Your task to perform on an android device: find snoozed emails in the gmail app Image 0: 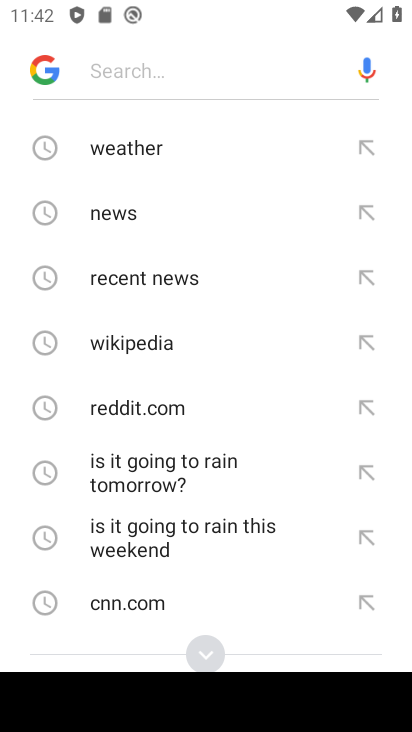
Step 0: press home button
Your task to perform on an android device: find snoozed emails in the gmail app Image 1: 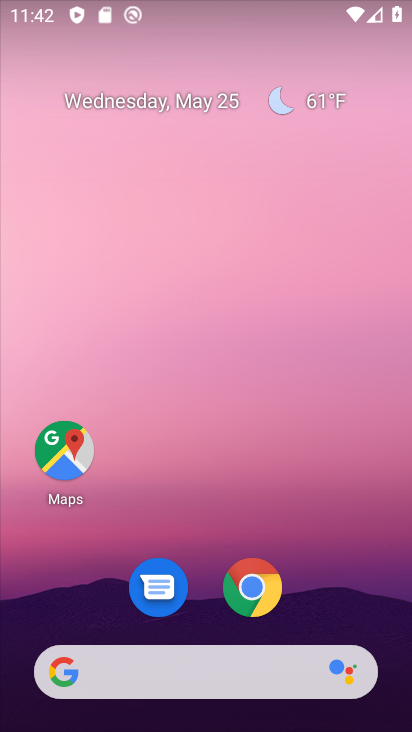
Step 1: drag from (191, 641) to (207, 134)
Your task to perform on an android device: find snoozed emails in the gmail app Image 2: 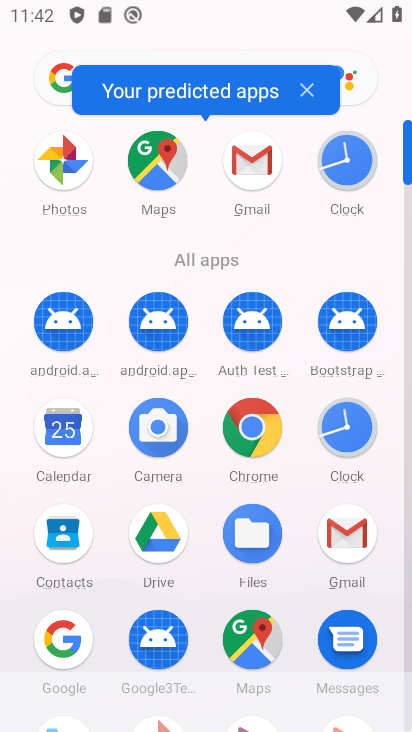
Step 2: click (365, 539)
Your task to perform on an android device: find snoozed emails in the gmail app Image 3: 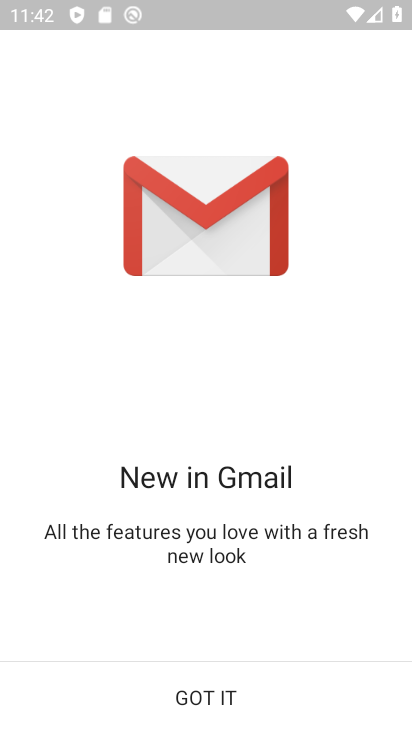
Step 3: click (251, 705)
Your task to perform on an android device: find snoozed emails in the gmail app Image 4: 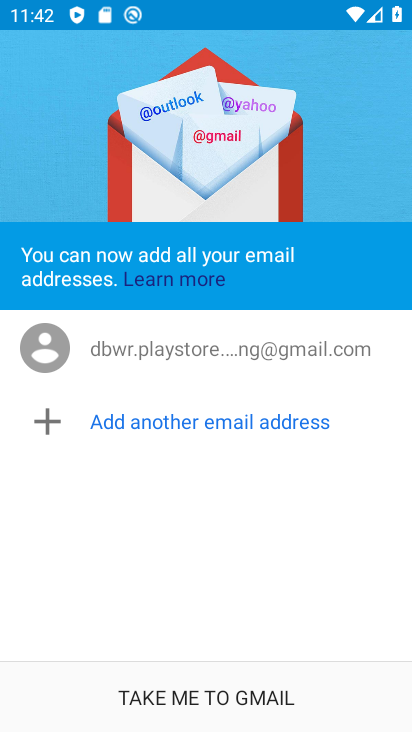
Step 4: click (225, 706)
Your task to perform on an android device: find snoozed emails in the gmail app Image 5: 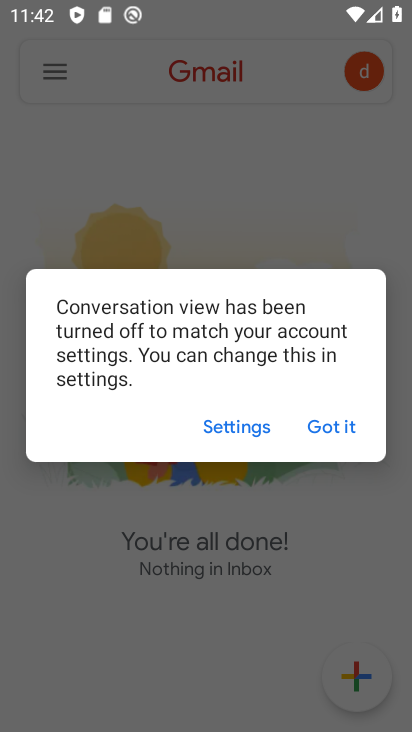
Step 5: click (332, 426)
Your task to perform on an android device: find snoozed emails in the gmail app Image 6: 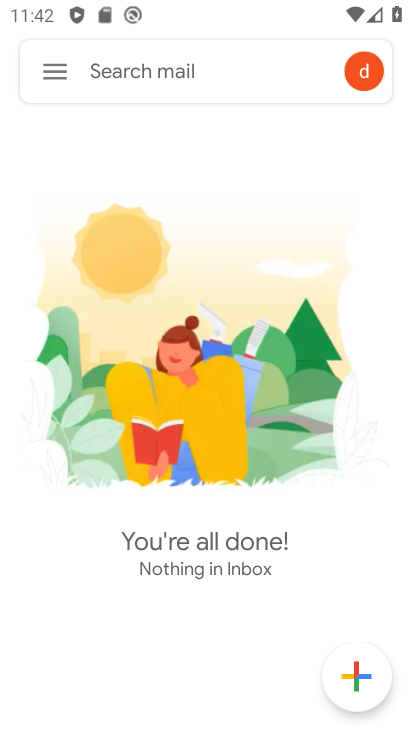
Step 6: click (58, 81)
Your task to perform on an android device: find snoozed emails in the gmail app Image 7: 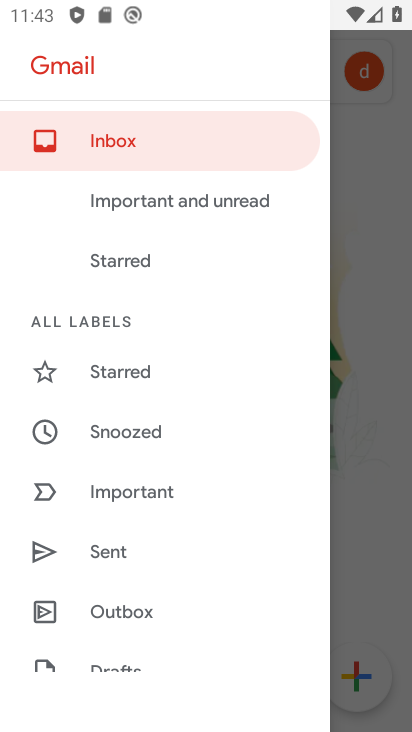
Step 7: click (118, 434)
Your task to perform on an android device: find snoozed emails in the gmail app Image 8: 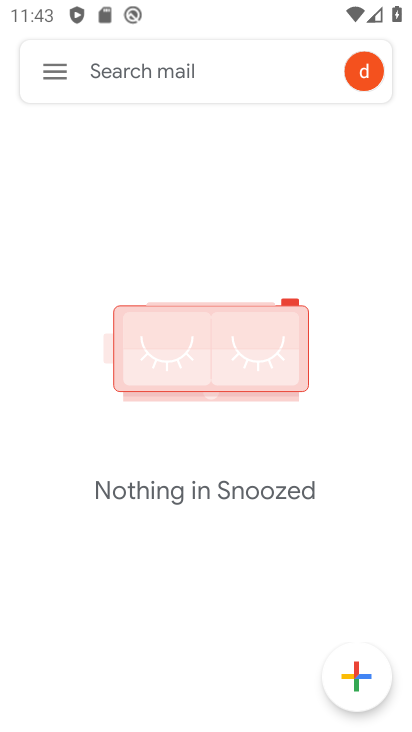
Step 8: task complete